Your task to perform on an android device: Show me recent news Image 0: 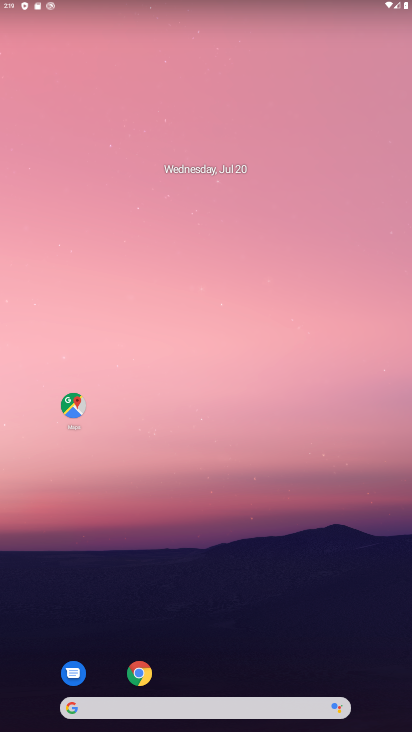
Step 0: drag from (3, 300) to (402, 294)
Your task to perform on an android device: Show me recent news Image 1: 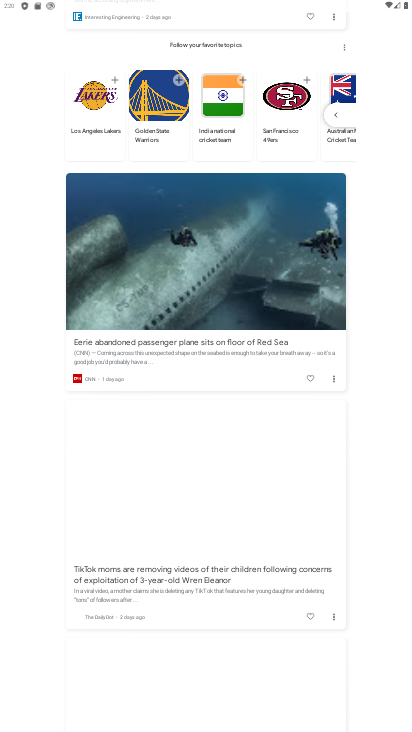
Step 1: task complete